Your task to perform on an android device: open app "Gmail" (install if not already installed) Image 0: 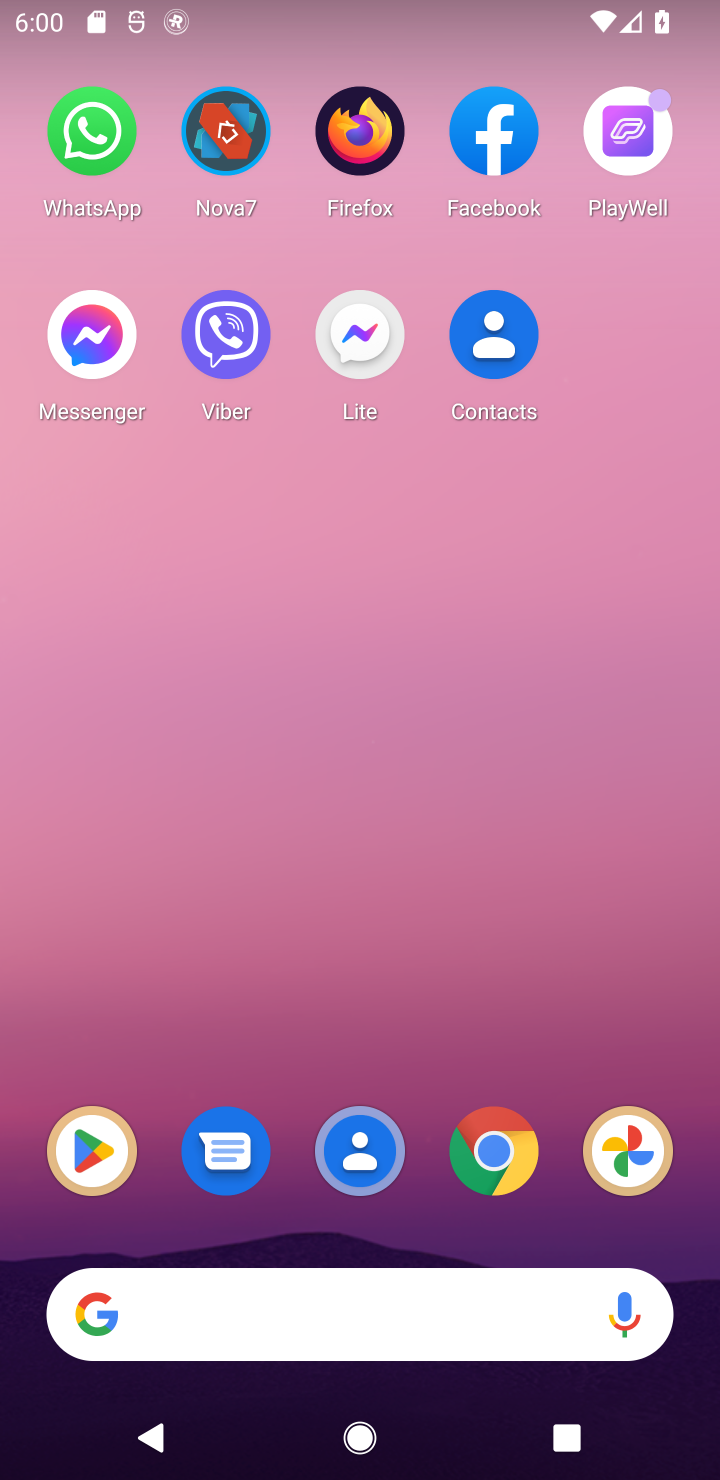
Step 0: drag from (346, 783) to (274, 4)
Your task to perform on an android device: open app "Gmail" (install if not already installed) Image 1: 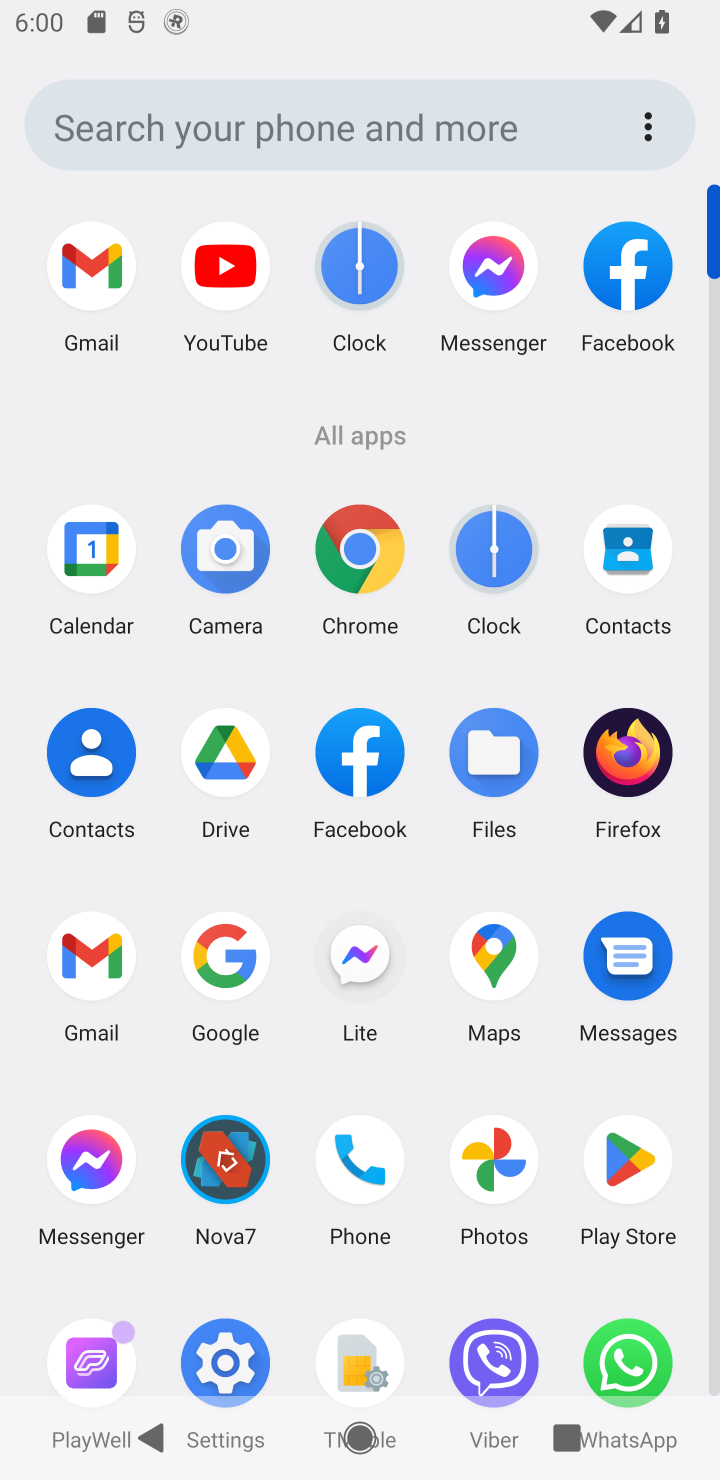
Step 1: click (107, 278)
Your task to perform on an android device: open app "Gmail" (install if not already installed) Image 2: 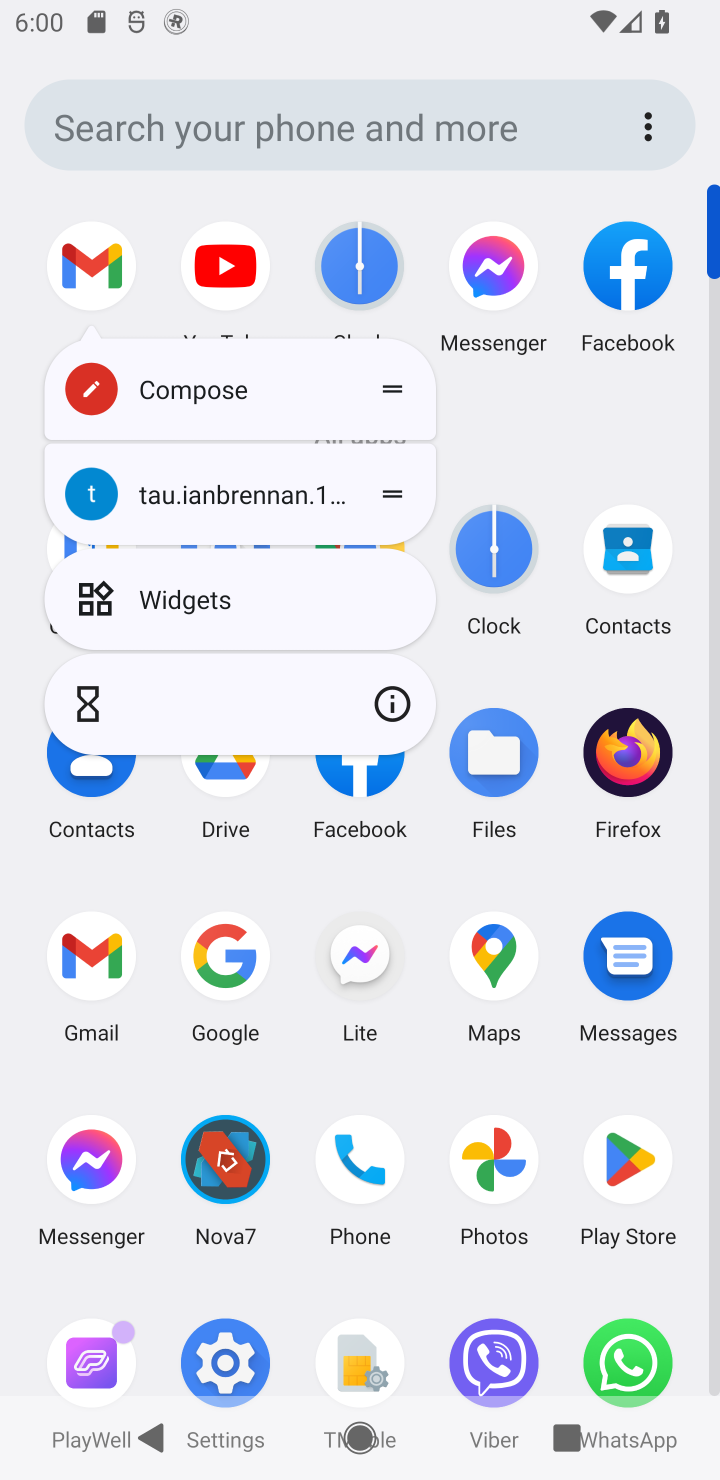
Step 2: click (90, 265)
Your task to perform on an android device: open app "Gmail" (install if not already installed) Image 3: 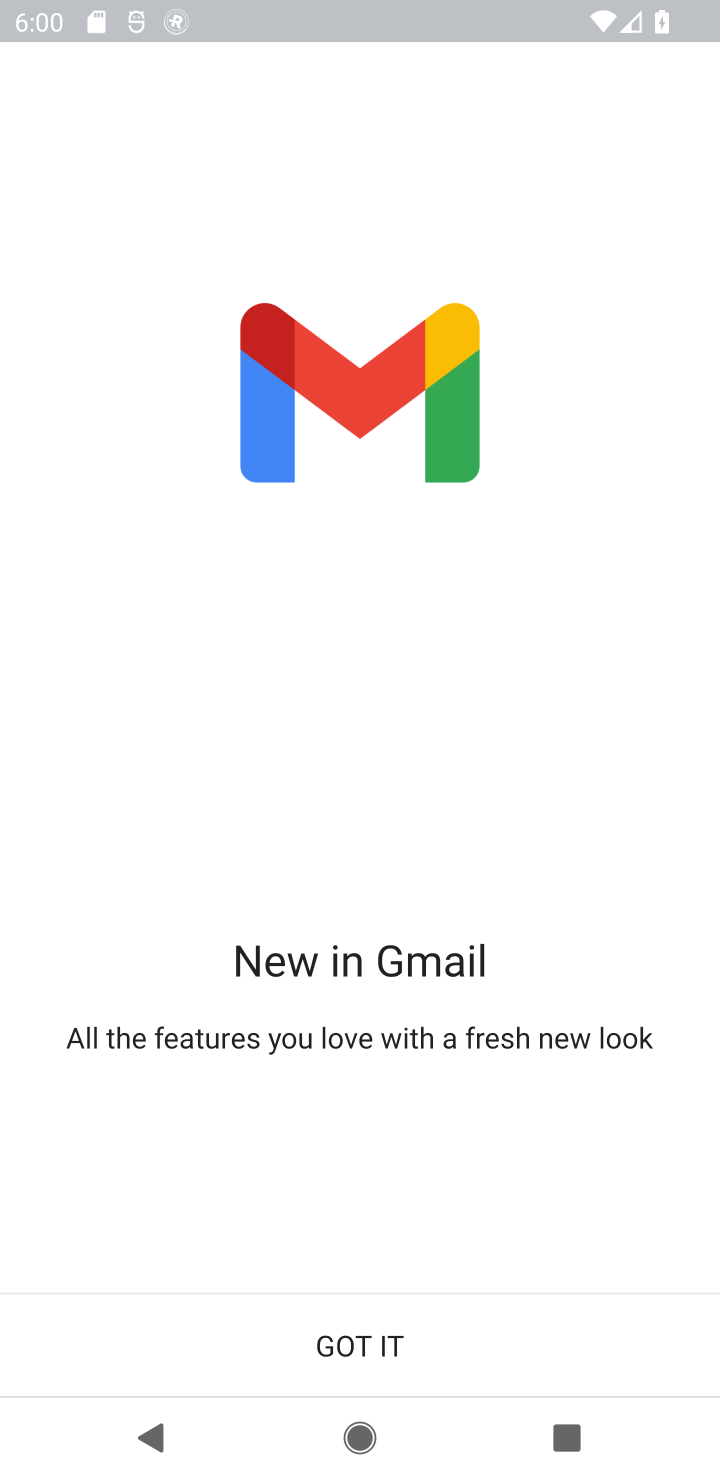
Step 3: task complete